Your task to perform on an android device: Show me recent news Image 0: 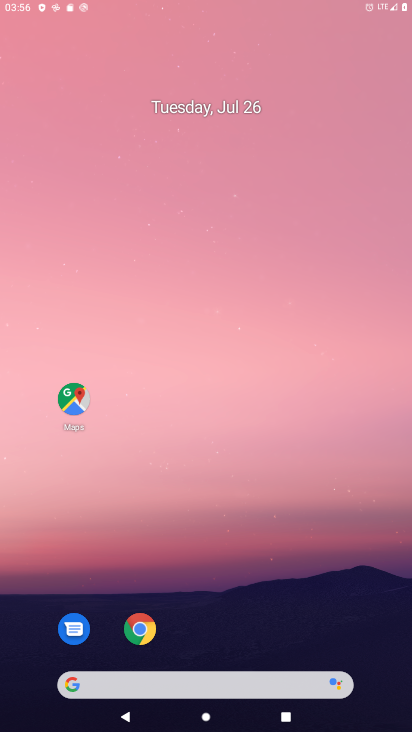
Step 0: drag from (289, 618) to (295, 140)
Your task to perform on an android device: Show me recent news Image 1: 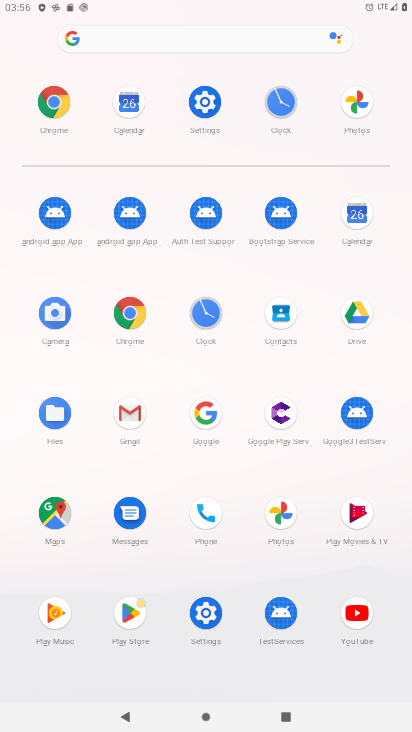
Step 1: click (206, 613)
Your task to perform on an android device: Show me recent news Image 2: 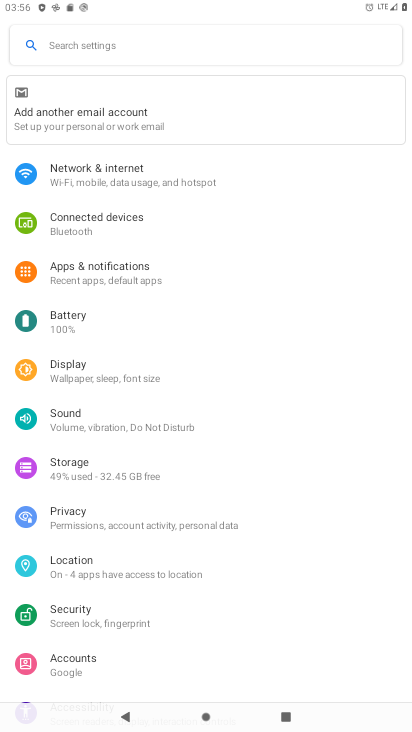
Step 2: press home button
Your task to perform on an android device: Show me recent news Image 3: 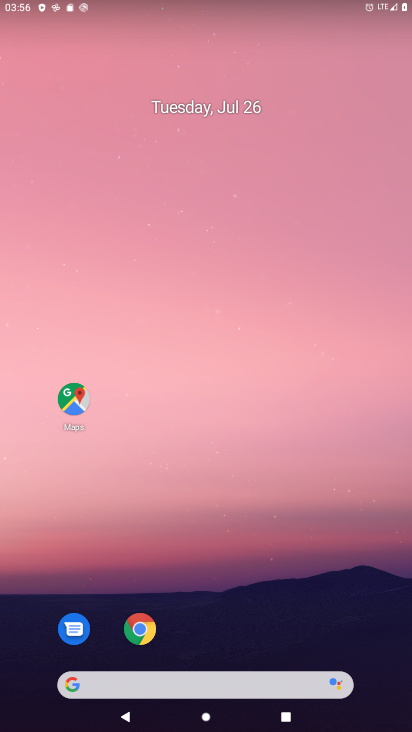
Step 3: drag from (280, 634) to (326, 190)
Your task to perform on an android device: Show me recent news Image 4: 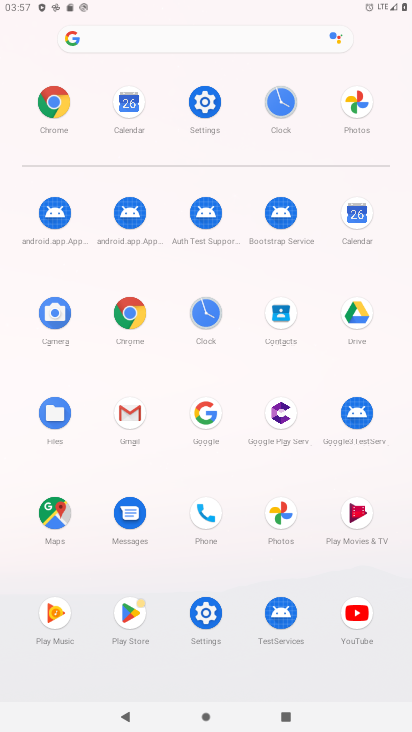
Step 4: click (126, 303)
Your task to perform on an android device: Show me recent news Image 5: 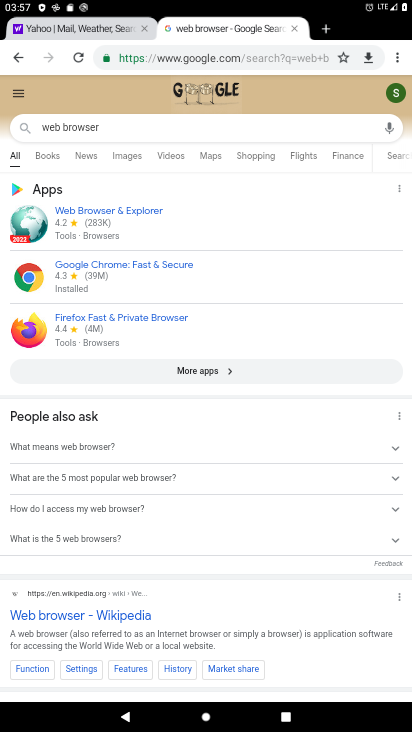
Step 5: click (86, 153)
Your task to perform on an android device: Show me recent news Image 6: 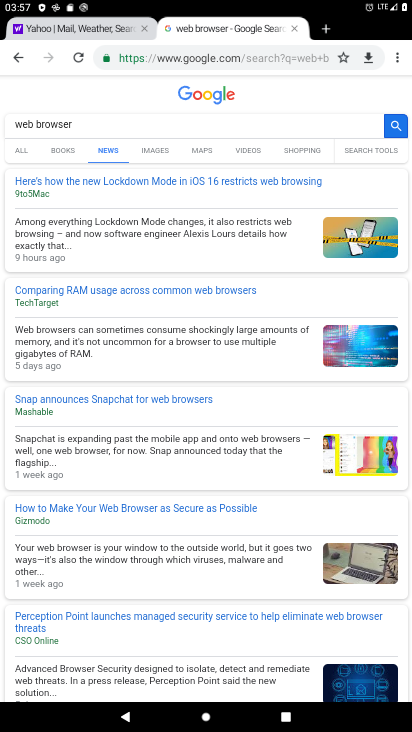
Step 6: task complete